Your task to perform on an android device: open device folders in google photos Image 0: 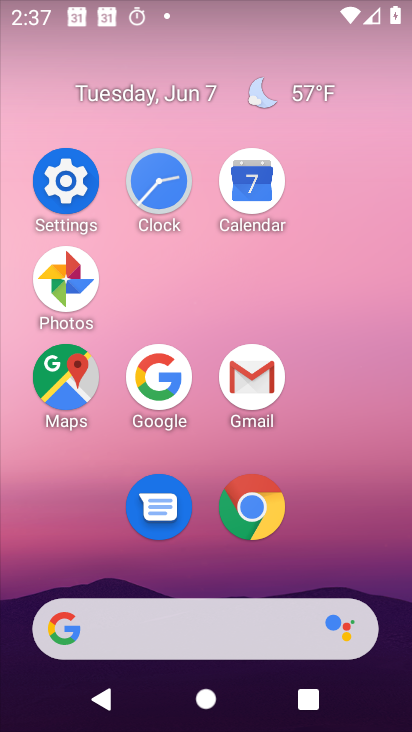
Step 0: click (53, 273)
Your task to perform on an android device: open device folders in google photos Image 1: 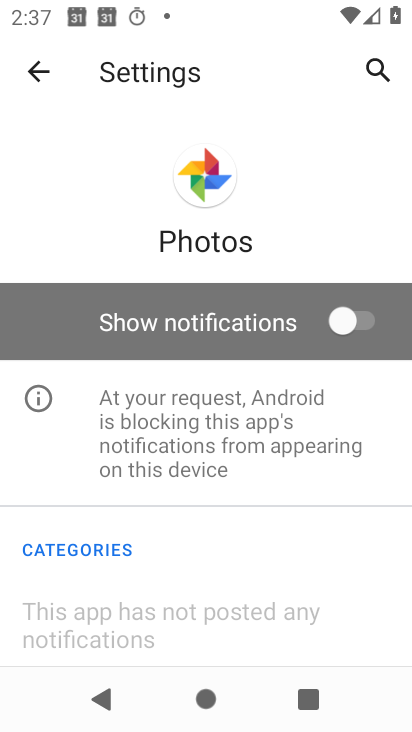
Step 1: click (46, 55)
Your task to perform on an android device: open device folders in google photos Image 2: 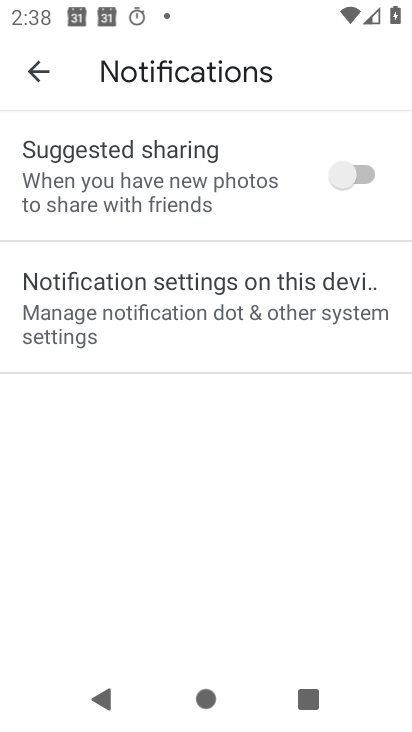
Step 2: click (44, 72)
Your task to perform on an android device: open device folders in google photos Image 3: 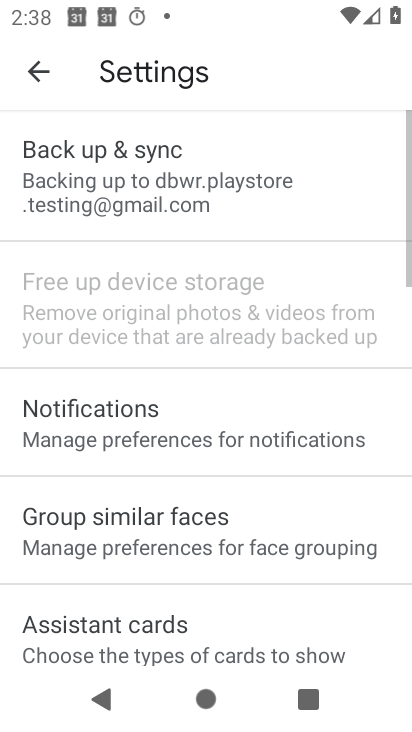
Step 3: click (27, 68)
Your task to perform on an android device: open device folders in google photos Image 4: 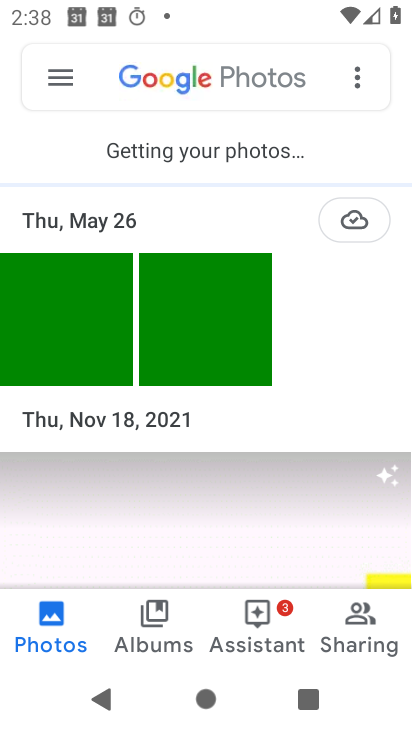
Step 4: click (41, 76)
Your task to perform on an android device: open device folders in google photos Image 5: 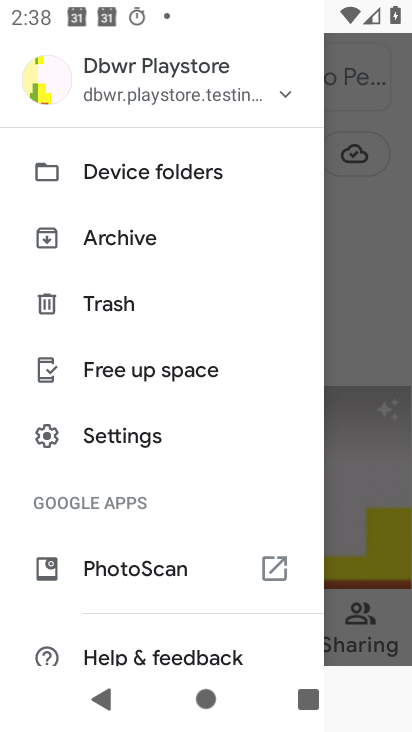
Step 5: click (187, 160)
Your task to perform on an android device: open device folders in google photos Image 6: 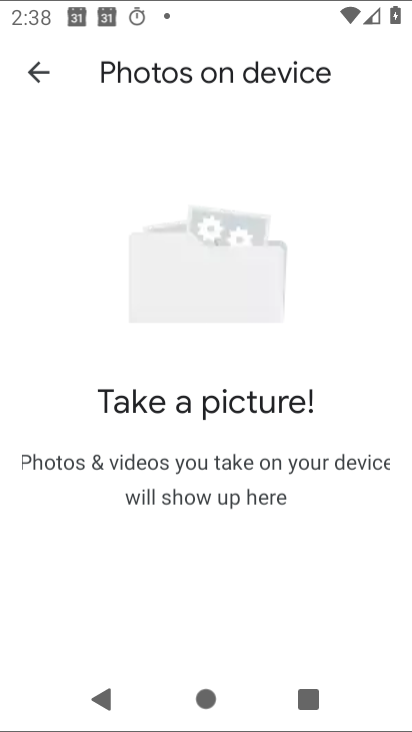
Step 6: task complete